Your task to perform on an android device: Do I have any events tomorrow? Image 0: 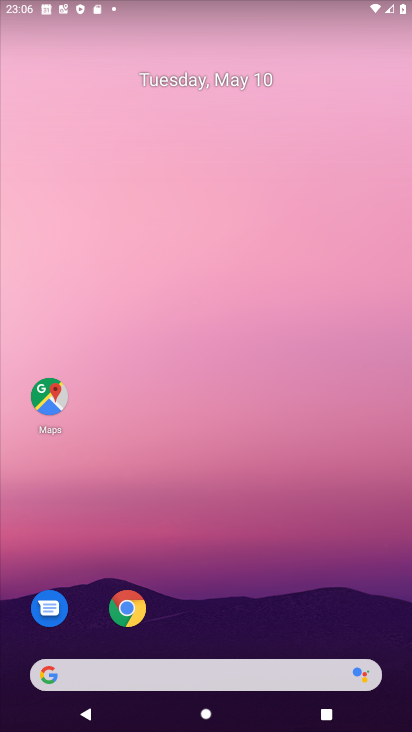
Step 0: drag from (282, 606) to (260, 197)
Your task to perform on an android device: Do I have any events tomorrow? Image 1: 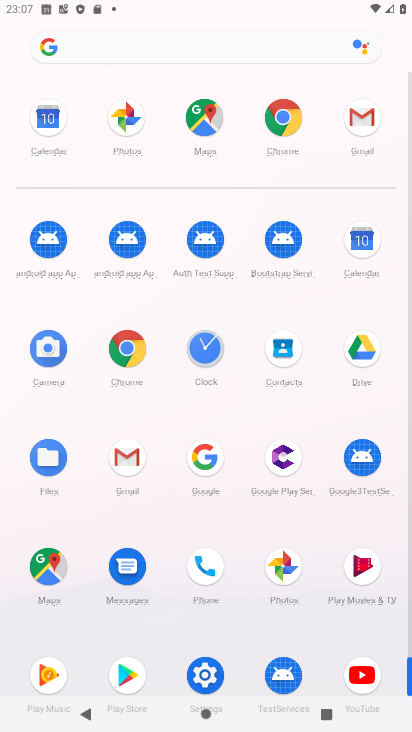
Step 1: click (359, 236)
Your task to perform on an android device: Do I have any events tomorrow? Image 2: 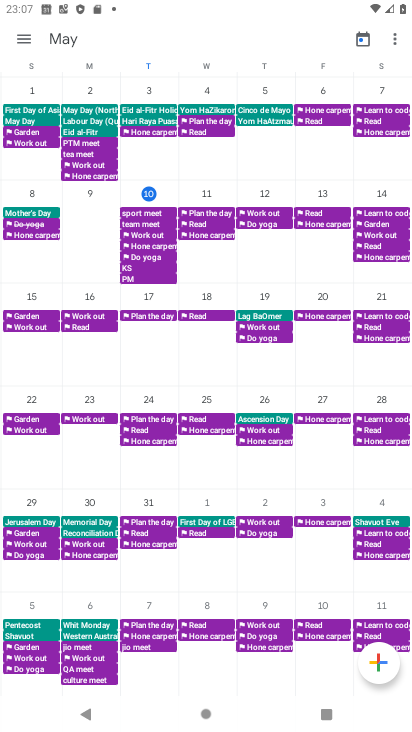
Step 2: click (242, 193)
Your task to perform on an android device: Do I have any events tomorrow? Image 3: 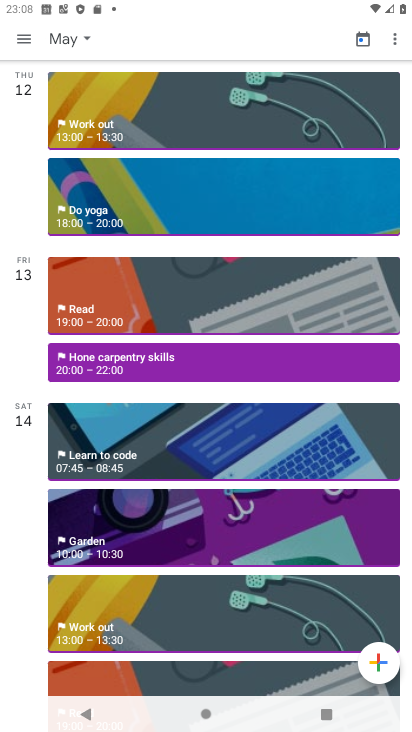
Step 3: task complete